Your task to perform on an android device: toggle location history Image 0: 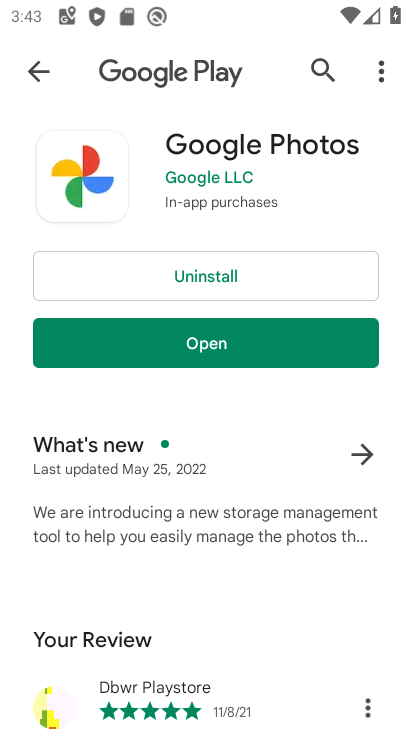
Step 0: press home button
Your task to perform on an android device: toggle location history Image 1: 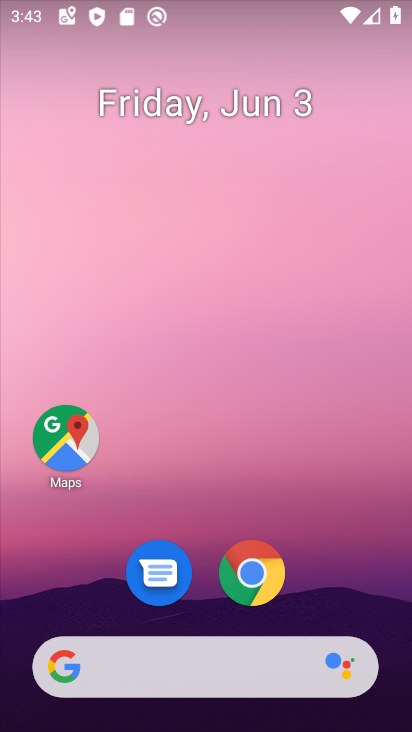
Step 1: drag from (395, 701) to (343, 125)
Your task to perform on an android device: toggle location history Image 2: 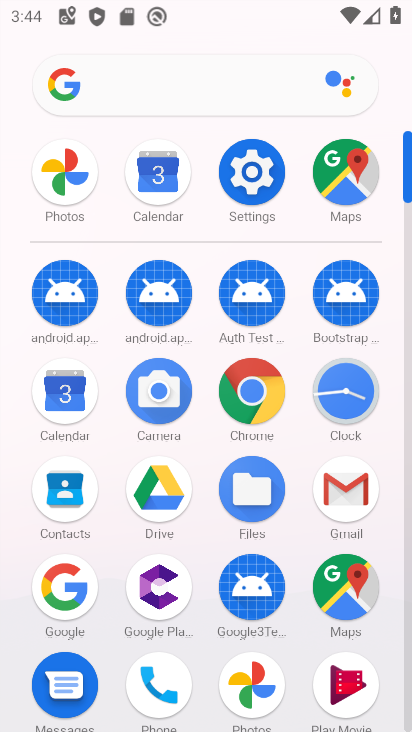
Step 2: click (254, 179)
Your task to perform on an android device: toggle location history Image 3: 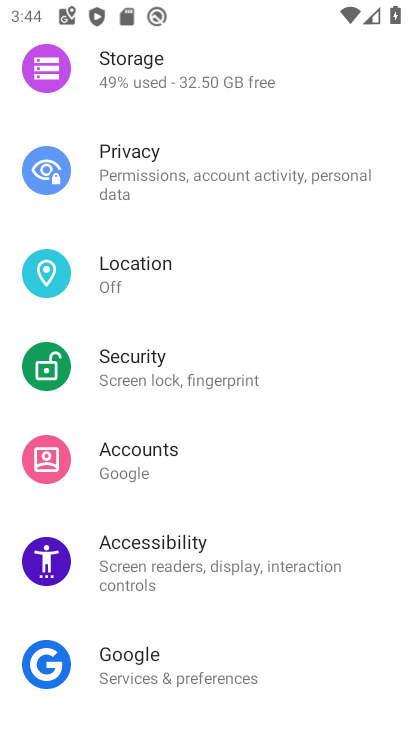
Step 3: click (126, 273)
Your task to perform on an android device: toggle location history Image 4: 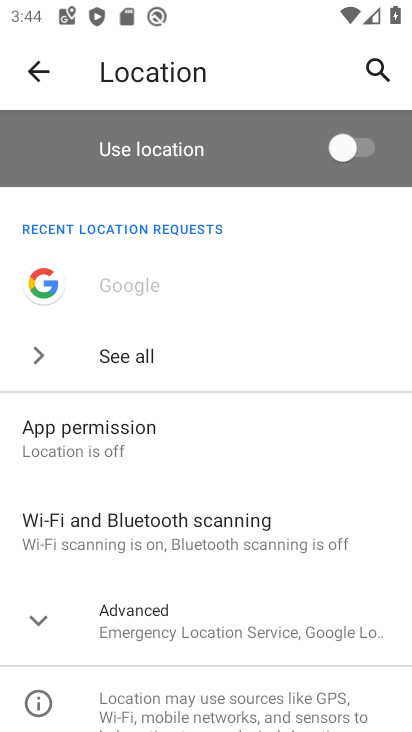
Step 4: drag from (168, 609) to (168, 371)
Your task to perform on an android device: toggle location history Image 5: 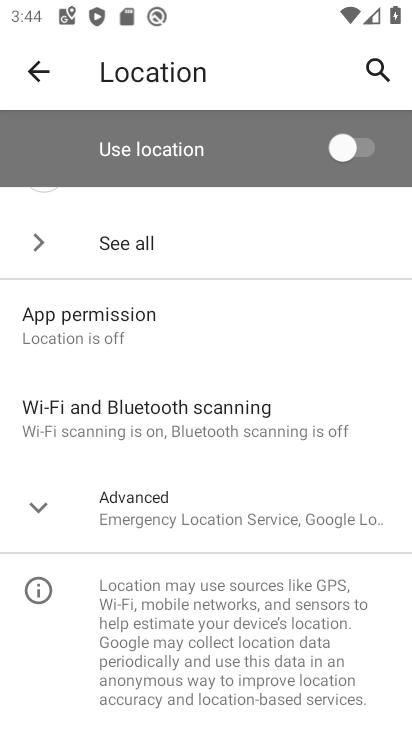
Step 5: click (43, 536)
Your task to perform on an android device: toggle location history Image 6: 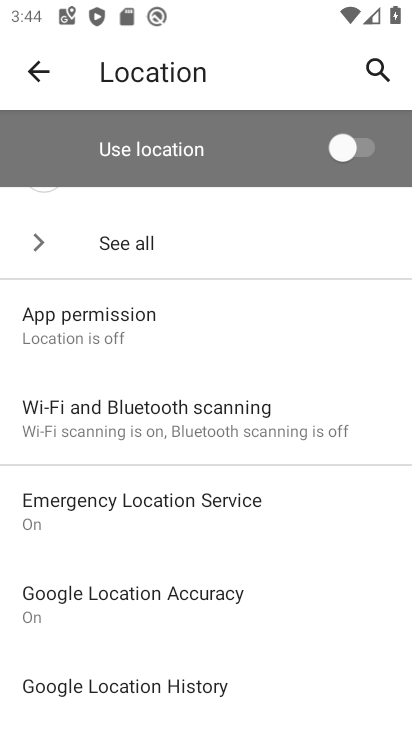
Step 6: click (147, 686)
Your task to perform on an android device: toggle location history Image 7: 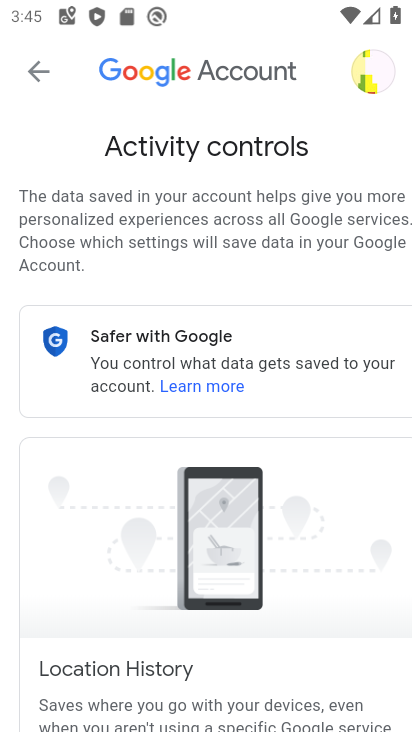
Step 7: drag from (334, 598) to (320, 235)
Your task to perform on an android device: toggle location history Image 8: 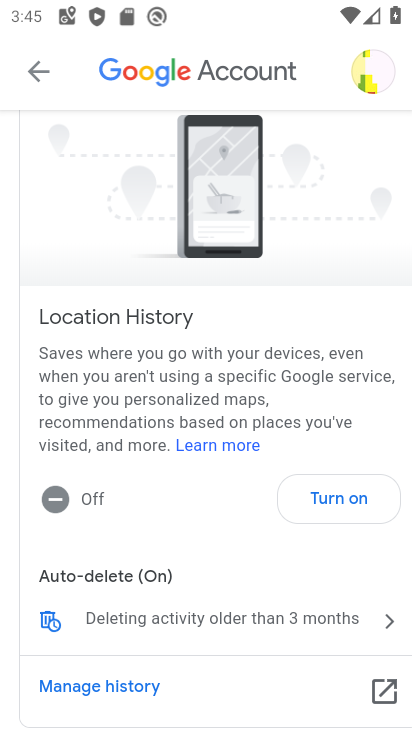
Step 8: click (332, 500)
Your task to perform on an android device: toggle location history Image 9: 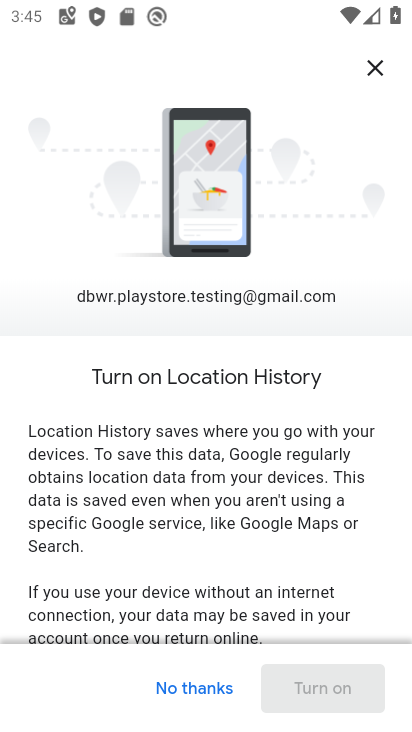
Step 9: drag from (229, 599) to (154, 196)
Your task to perform on an android device: toggle location history Image 10: 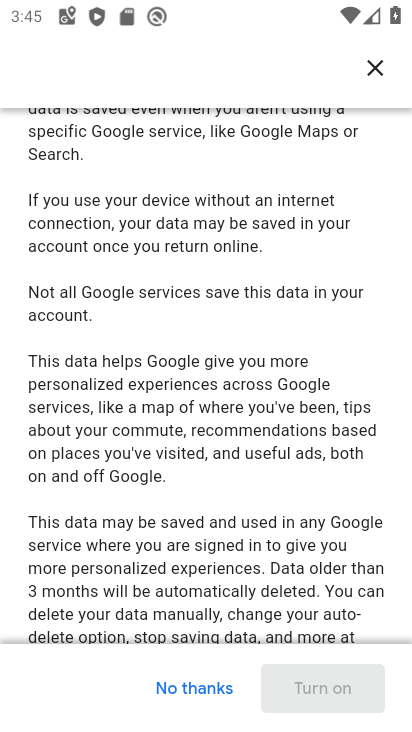
Step 10: drag from (214, 556) to (207, 214)
Your task to perform on an android device: toggle location history Image 11: 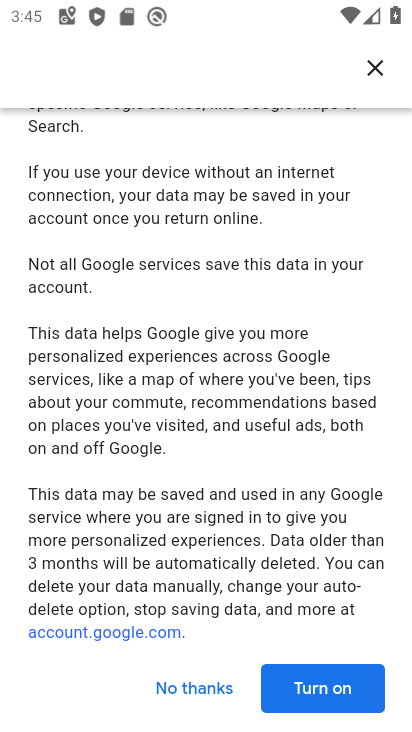
Step 11: click (300, 686)
Your task to perform on an android device: toggle location history Image 12: 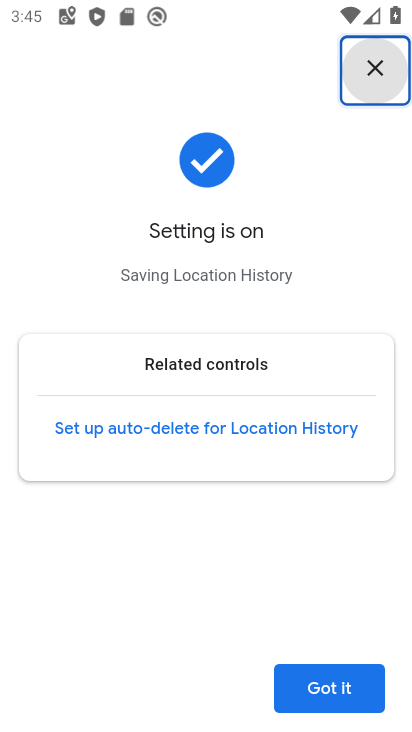
Step 12: click (332, 699)
Your task to perform on an android device: toggle location history Image 13: 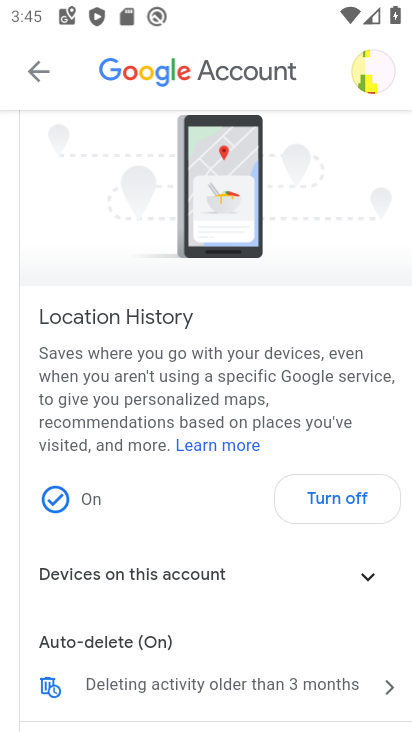
Step 13: task complete